Your task to perform on an android device: Open display settings Image 0: 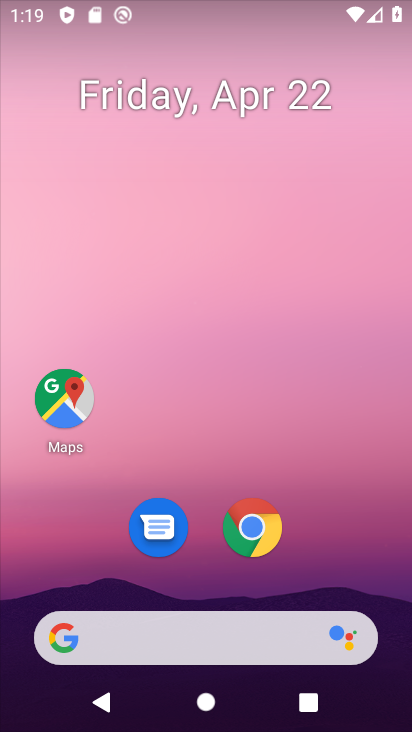
Step 0: drag from (236, 563) to (382, 19)
Your task to perform on an android device: Open display settings Image 1: 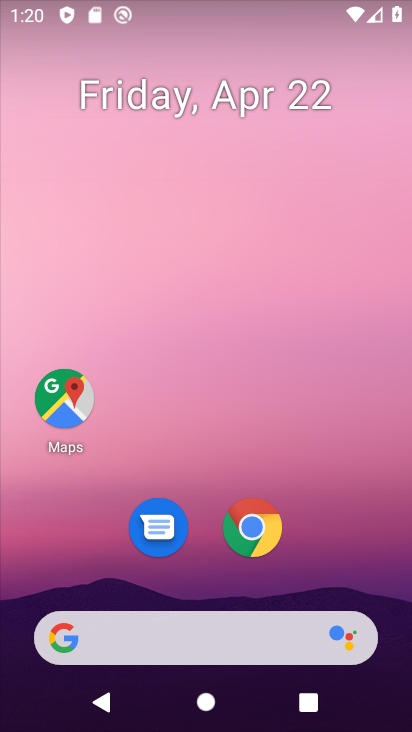
Step 1: drag from (198, 584) to (282, 117)
Your task to perform on an android device: Open display settings Image 2: 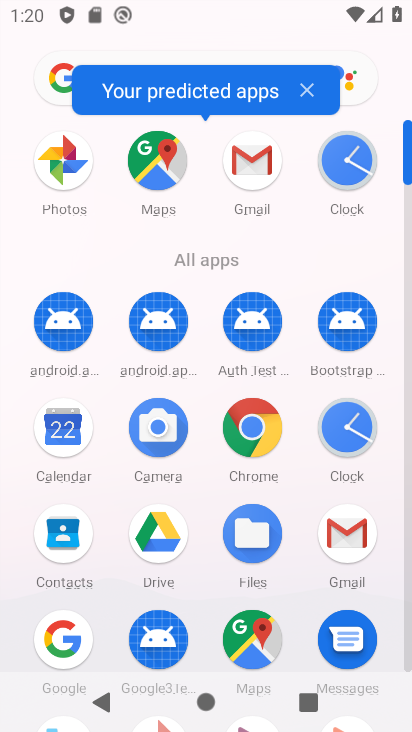
Step 2: drag from (213, 439) to (223, 229)
Your task to perform on an android device: Open display settings Image 3: 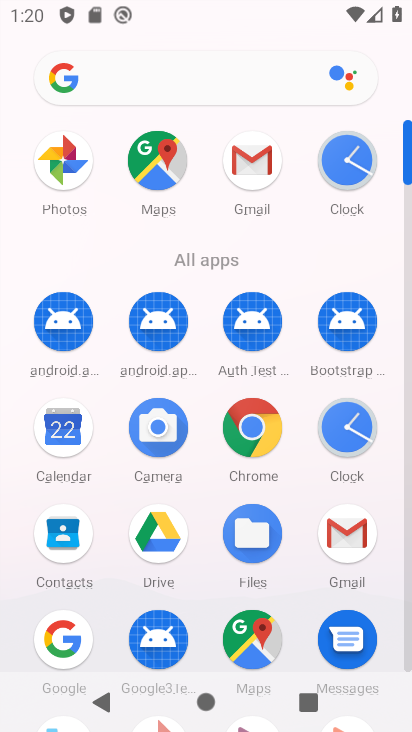
Step 3: drag from (223, 614) to (206, 112)
Your task to perform on an android device: Open display settings Image 4: 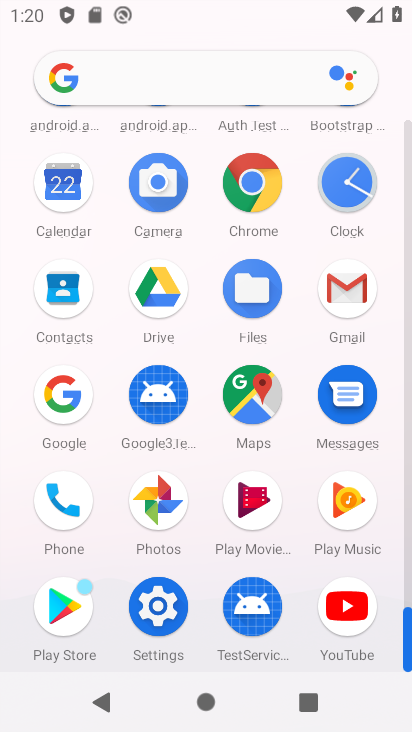
Step 4: click (160, 611)
Your task to perform on an android device: Open display settings Image 5: 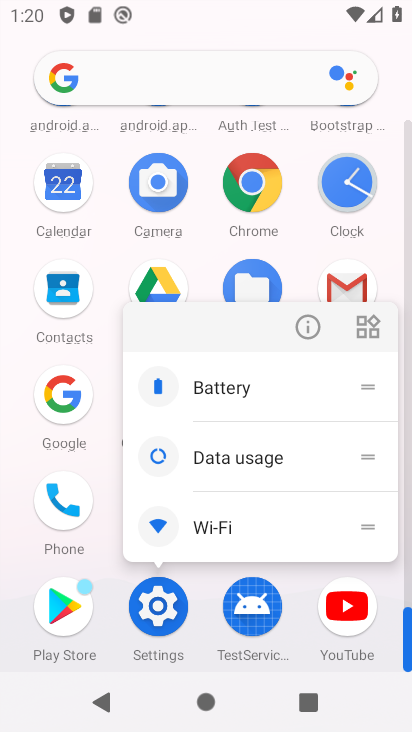
Step 5: click (312, 335)
Your task to perform on an android device: Open display settings Image 6: 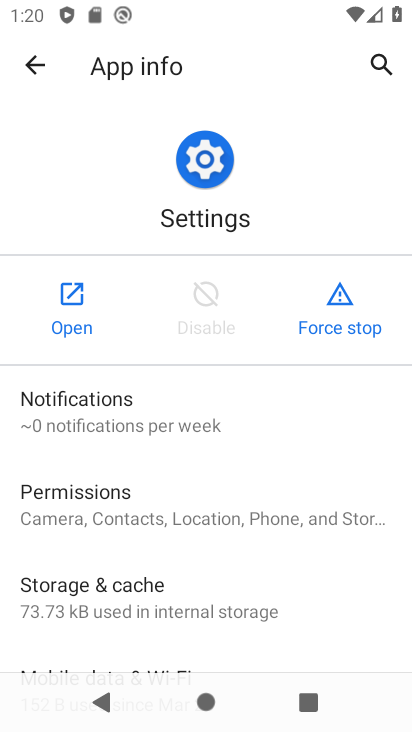
Step 6: click (60, 289)
Your task to perform on an android device: Open display settings Image 7: 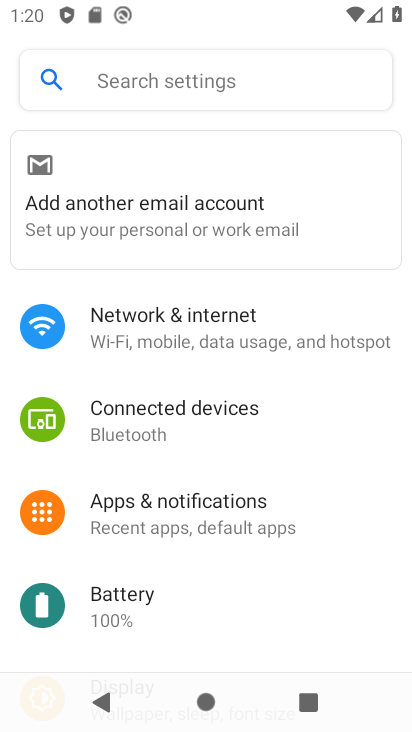
Step 7: drag from (199, 643) to (368, 150)
Your task to perform on an android device: Open display settings Image 8: 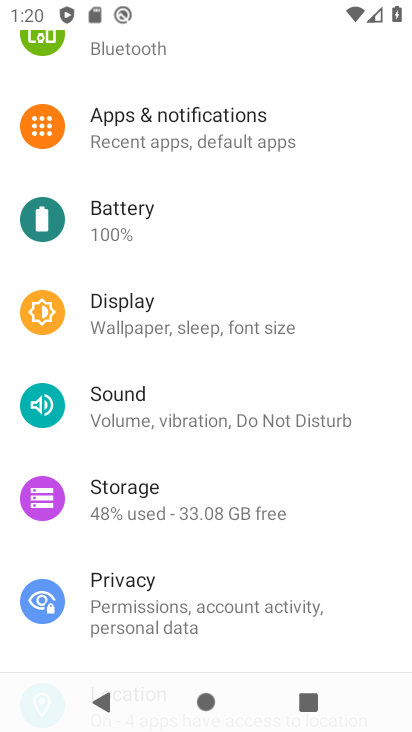
Step 8: click (175, 334)
Your task to perform on an android device: Open display settings Image 9: 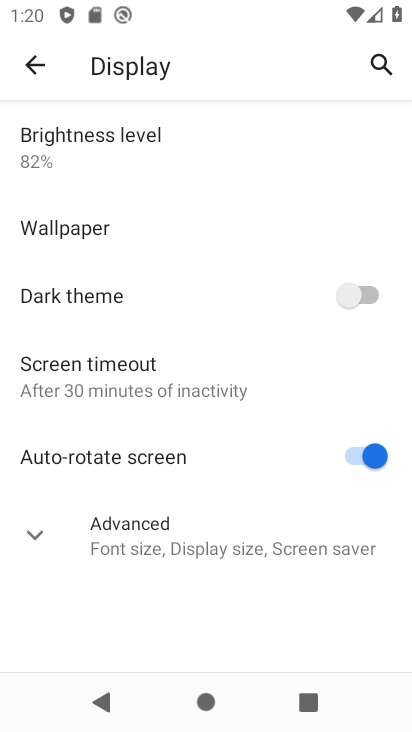
Step 9: task complete